Your task to perform on an android device: Open the web browser Image 0: 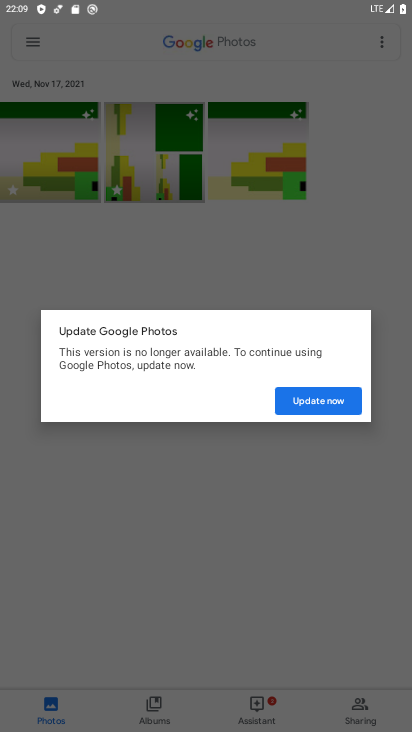
Step 0: press home button
Your task to perform on an android device: Open the web browser Image 1: 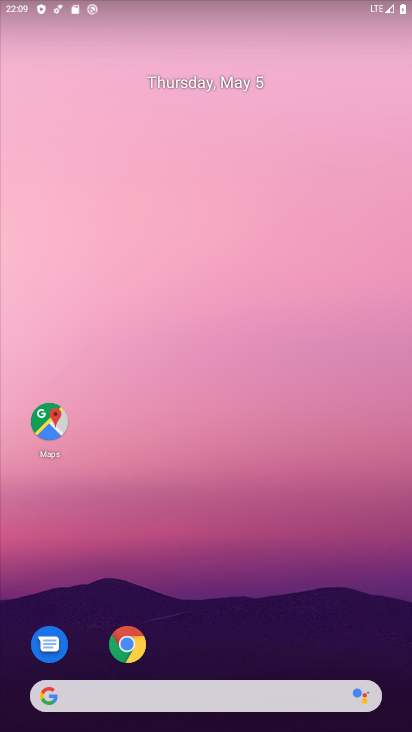
Step 1: click (185, 686)
Your task to perform on an android device: Open the web browser Image 2: 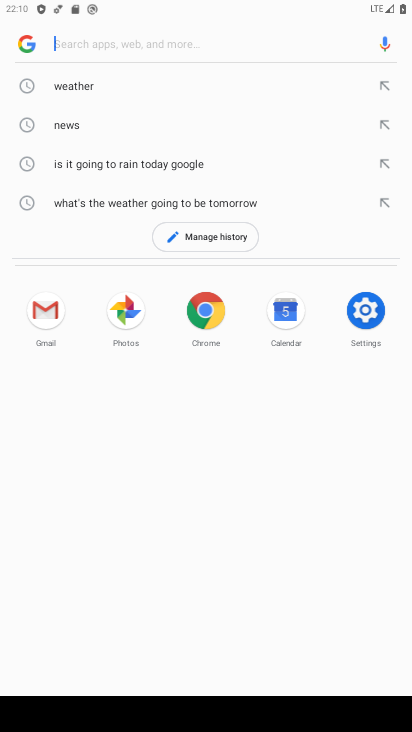
Step 2: task complete